Your task to perform on an android device: Search for Mexican restaurants on Maps Image 0: 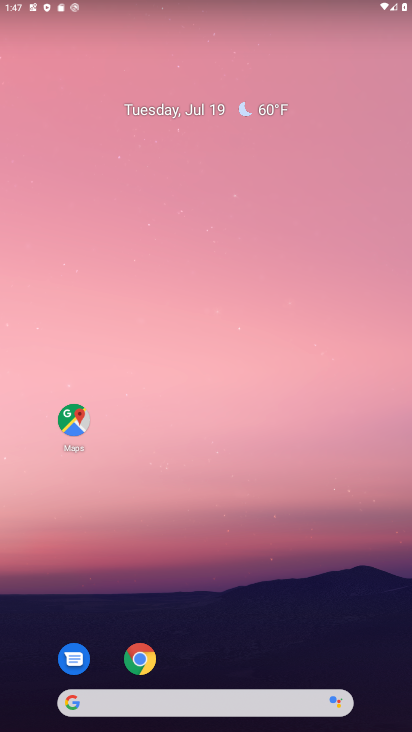
Step 0: click (76, 419)
Your task to perform on an android device: Search for Mexican restaurants on Maps Image 1: 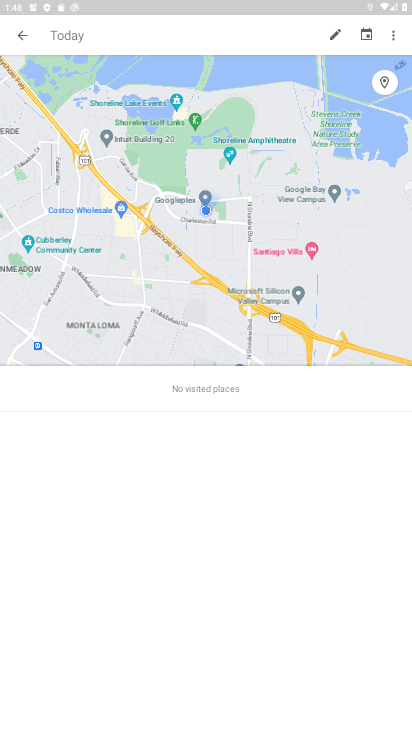
Step 1: click (21, 33)
Your task to perform on an android device: Search for Mexican restaurants on Maps Image 2: 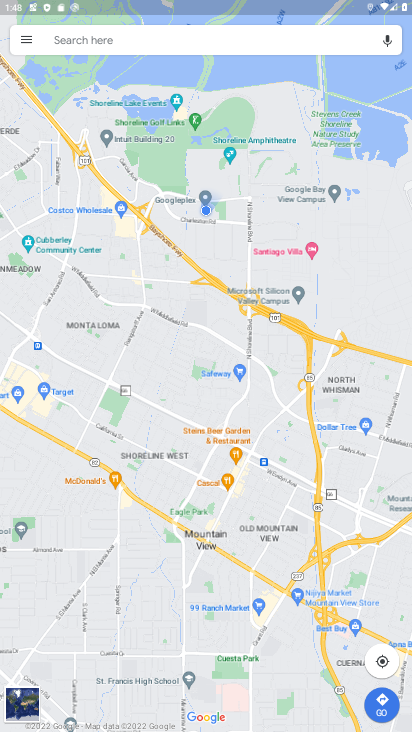
Step 2: click (132, 43)
Your task to perform on an android device: Search for Mexican restaurants on Maps Image 3: 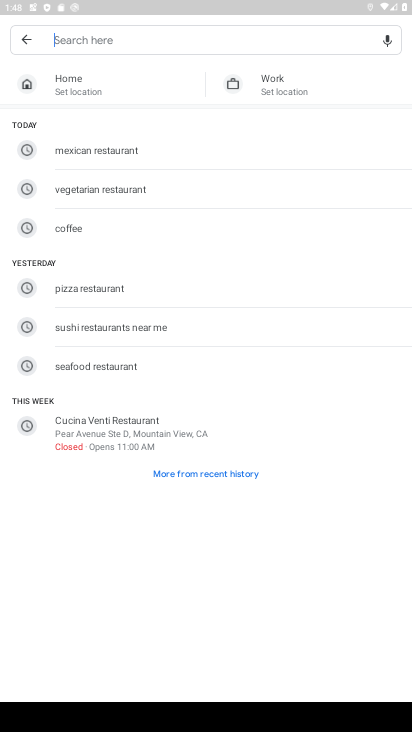
Step 3: click (157, 147)
Your task to perform on an android device: Search for Mexican restaurants on Maps Image 4: 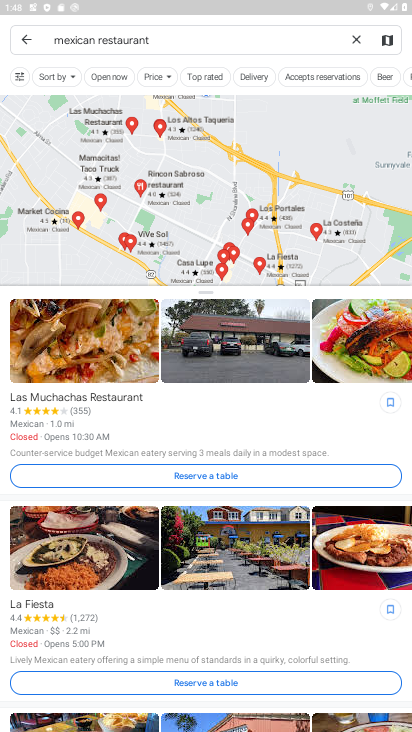
Step 4: task complete